Your task to perform on an android device: turn on improve location accuracy Image 0: 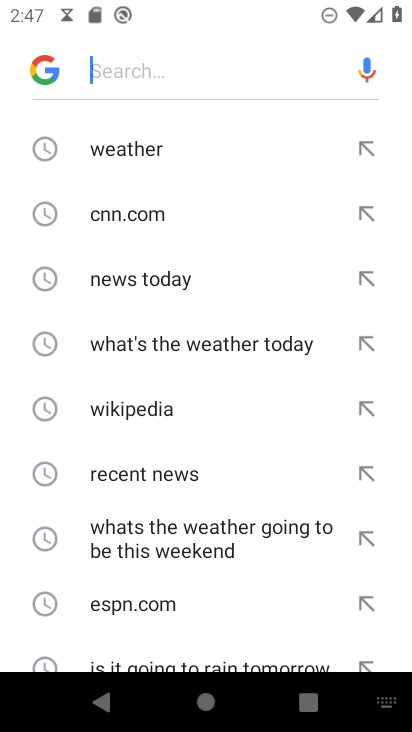
Step 0: press home button
Your task to perform on an android device: turn on improve location accuracy Image 1: 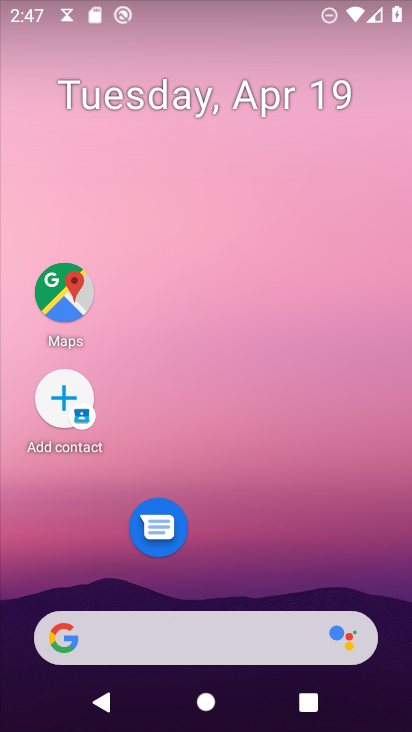
Step 1: drag from (253, 591) to (292, 125)
Your task to perform on an android device: turn on improve location accuracy Image 2: 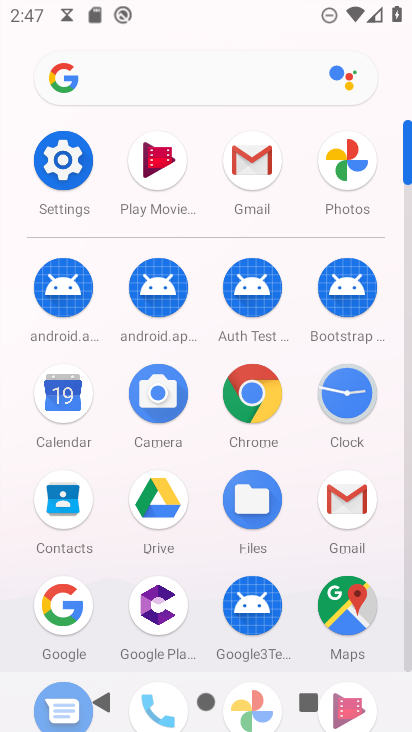
Step 2: click (63, 162)
Your task to perform on an android device: turn on improve location accuracy Image 3: 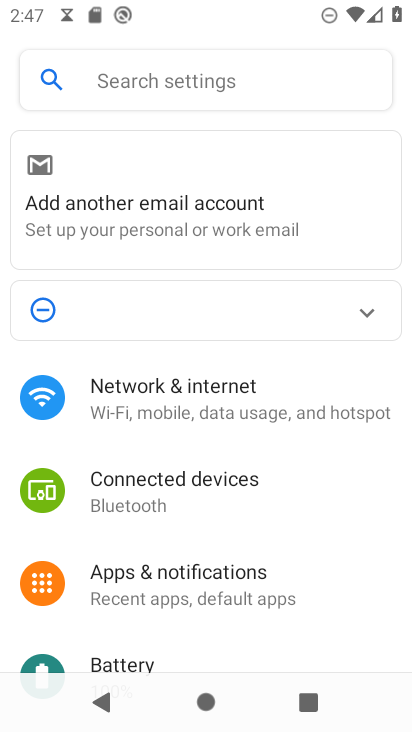
Step 3: drag from (200, 446) to (187, 335)
Your task to perform on an android device: turn on improve location accuracy Image 4: 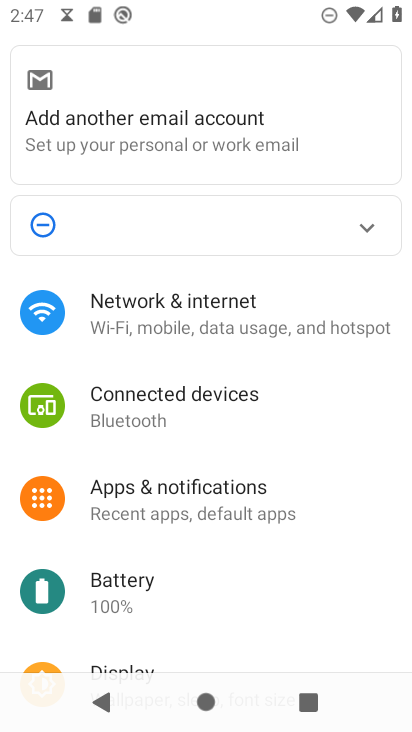
Step 4: drag from (185, 448) to (198, 355)
Your task to perform on an android device: turn on improve location accuracy Image 5: 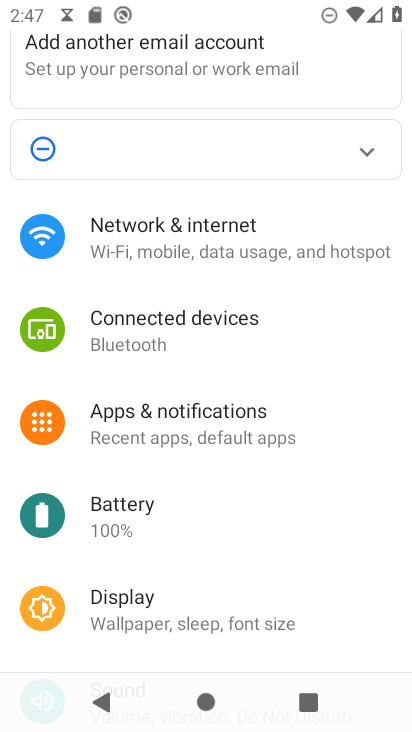
Step 5: drag from (204, 393) to (206, 310)
Your task to perform on an android device: turn on improve location accuracy Image 6: 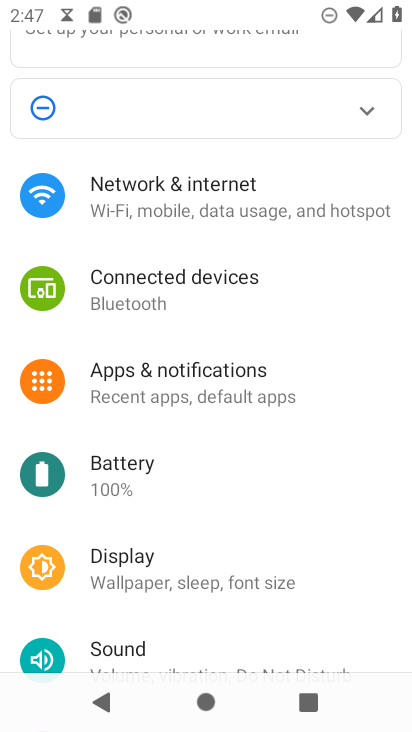
Step 6: drag from (208, 428) to (220, 358)
Your task to perform on an android device: turn on improve location accuracy Image 7: 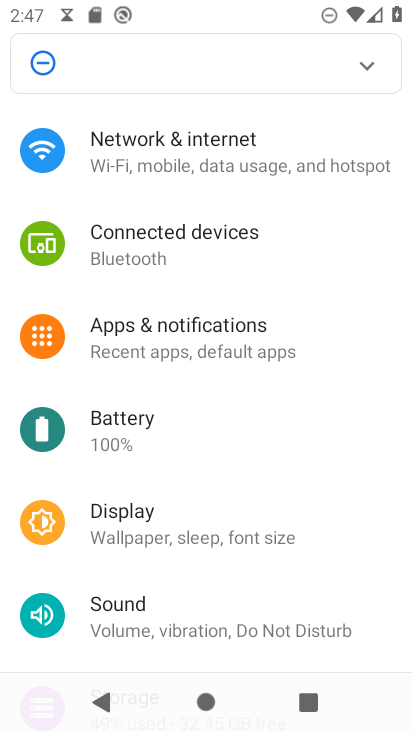
Step 7: drag from (192, 421) to (192, 317)
Your task to perform on an android device: turn on improve location accuracy Image 8: 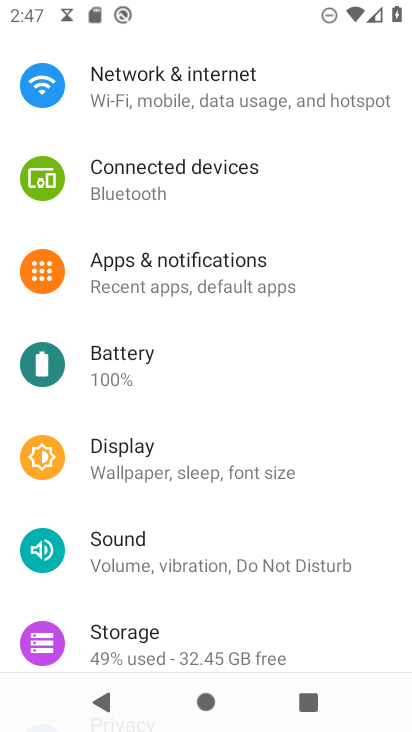
Step 8: drag from (188, 429) to (196, 334)
Your task to perform on an android device: turn on improve location accuracy Image 9: 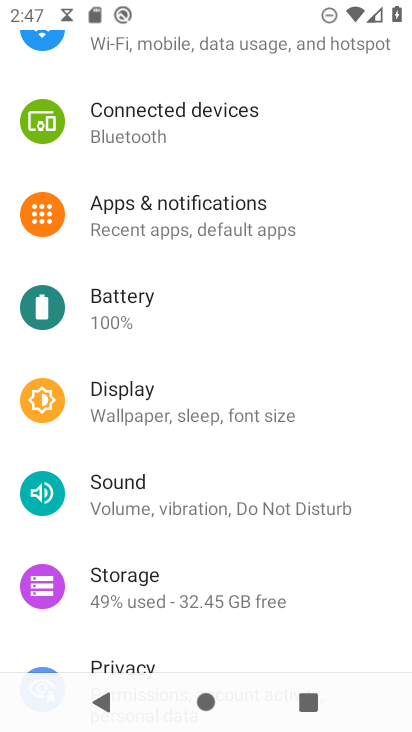
Step 9: drag from (204, 471) to (225, 354)
Your task to perform on an android device: turn on improve location accuracy Image 10: 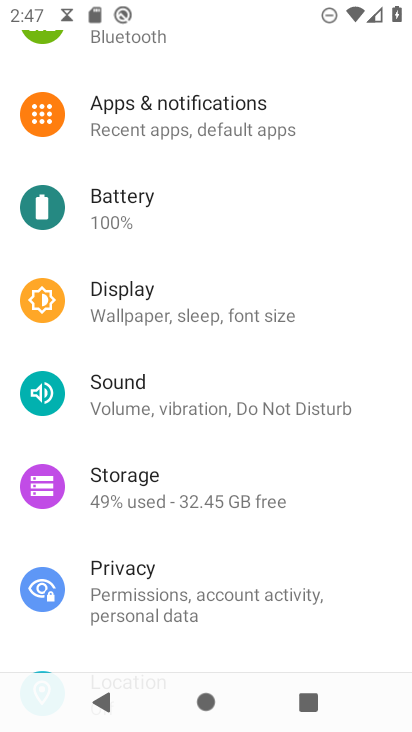
Step 10: drag from (202, 452) to (216, 353)
Your task to perform on an android device: turn on improve location accuracy Image 11: 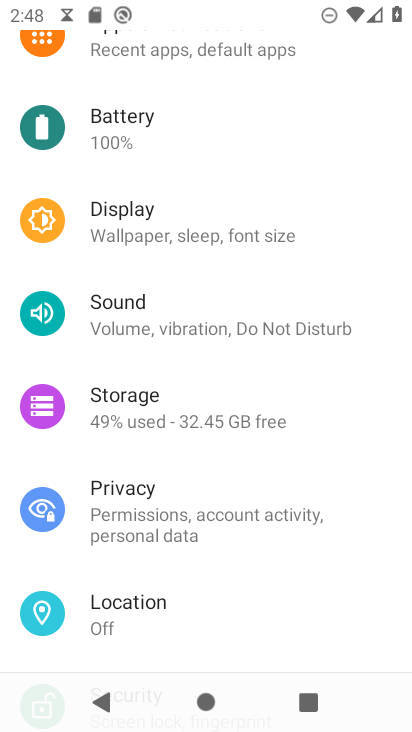
Step 11: drag from (212, 472) to (216, 364)
Your task to perform on an android device: turn on improve location accuracy Image 12: 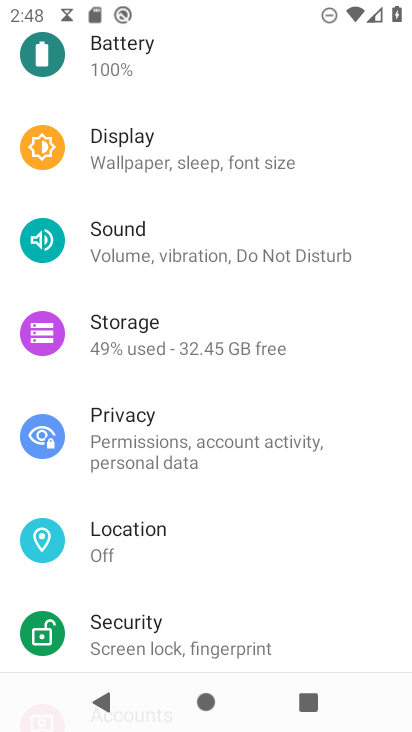
Step 12: click (134, 533)
Your task to perform on an android device: turn on improve location accuracy Image 13: 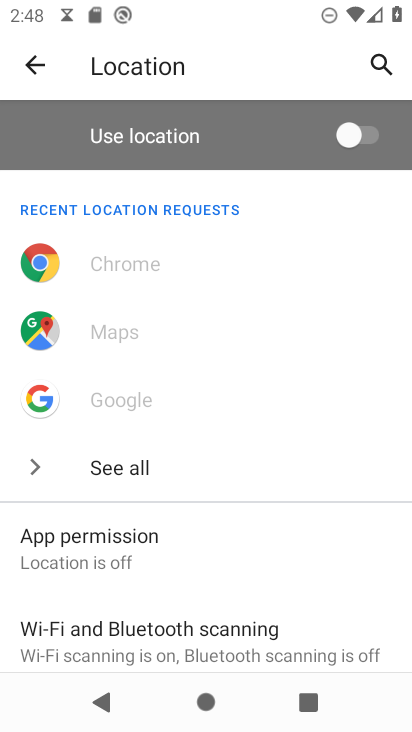
Step 13: drag from (183, 577) to (200, 419)
Your task to perform on an android device: turn on improve location accuracy Image 14: 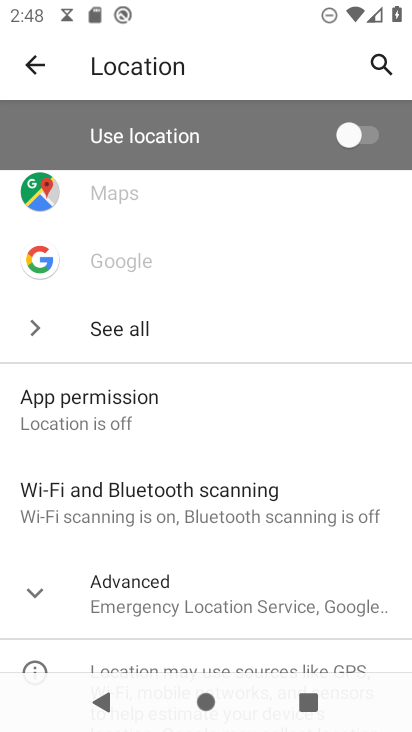
Step 14: click (199, 600)
Your task to perform on an android device: turn on improve location accuracy Image 15: 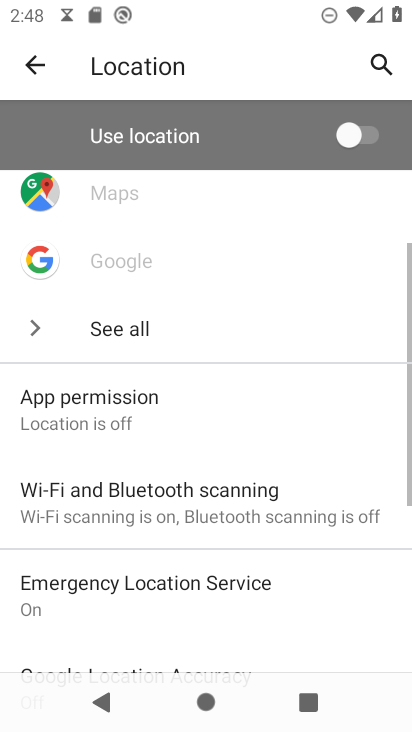
Step 15: drag from (199, 600) to (197, 488)
Your task to perform on an android device: turn on improve location accuracy Image 16: 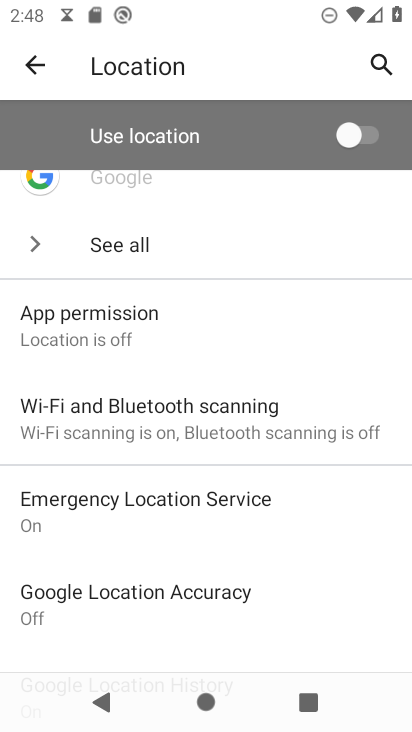
Step 16: drag from (200, 571) to (206, 488)
Your task to perform on an android device: turn on improve location accuracy Image 17: 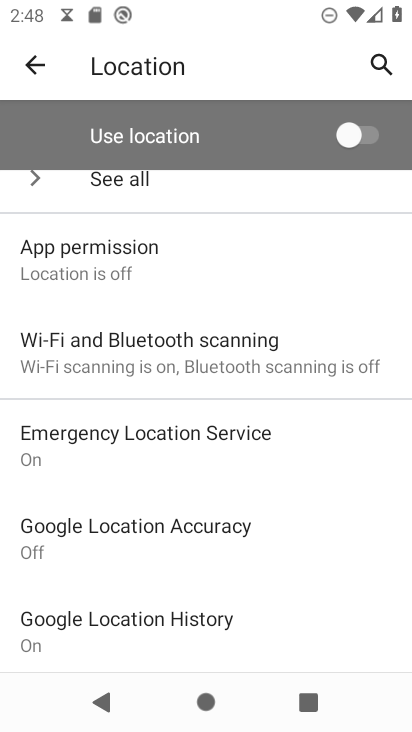
Step 17: click (209, 521)
Your task to perform on an android device: turn on improve location accuracy Image 18: 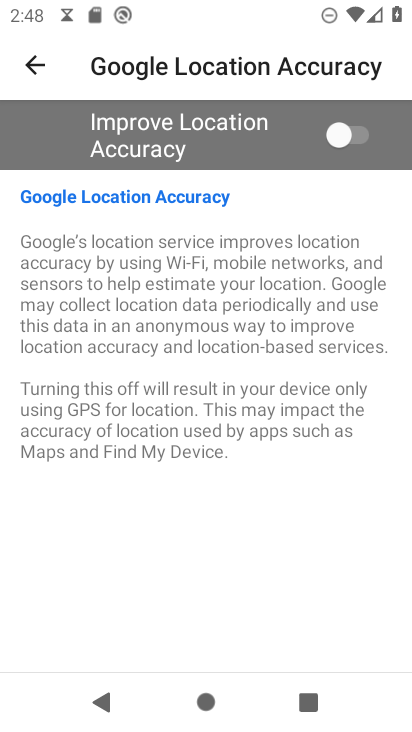
Step 18: click (355, 142)
Your task to perform on an android device: turn on improve location accuracy Image 19: 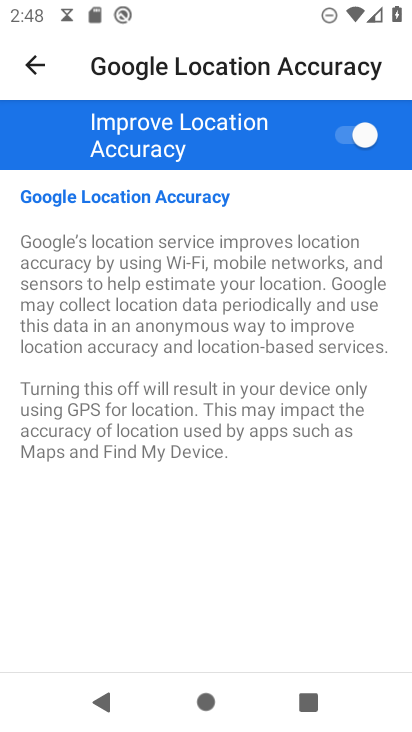
Step 19: task complete